Your task to perform on an android device: Search for Mexican restaurants on Maps Image 0: 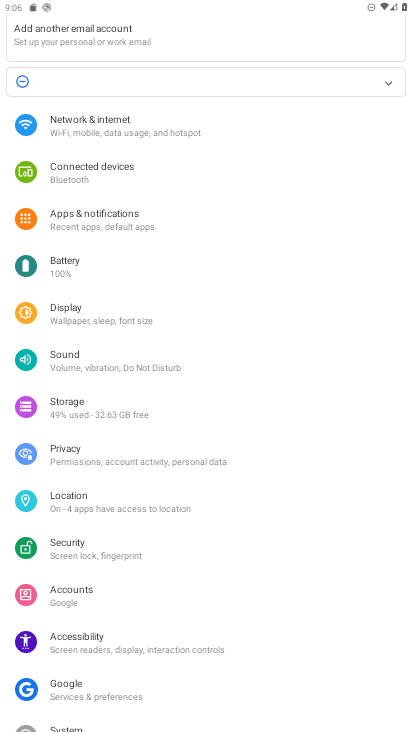
Step 0: press home button
Your task to perform on an android device: Search for Mexican restaurants on Maps Image 1: 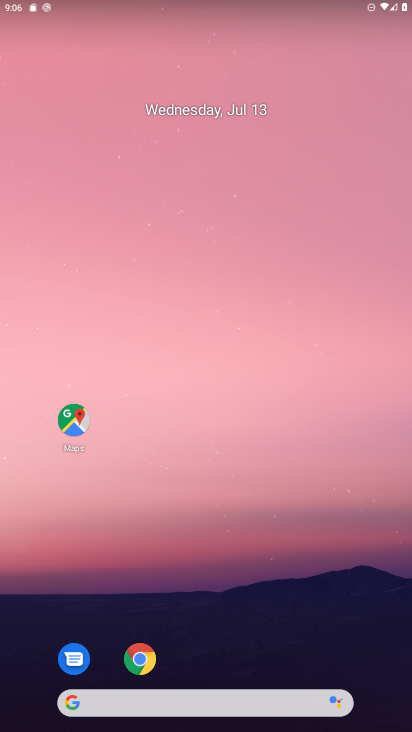
Step 1: click (71, 425)
Your task to perform on an android device: Search for Mexican restaurants on Maps Image 2: 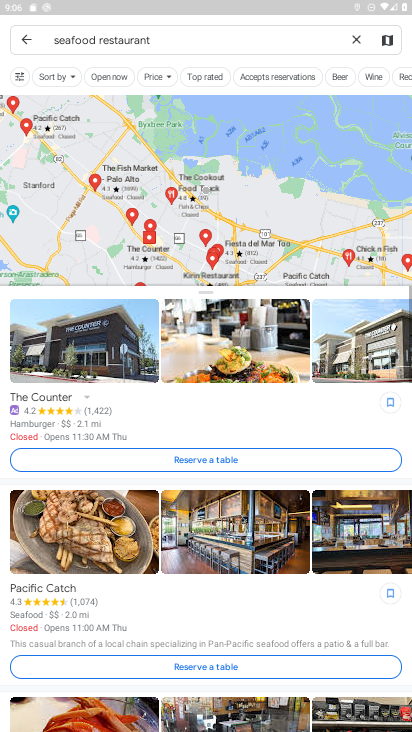
Step 2: click (261, 42)
Your task to perform on an android device: Search for Mexican restaurants on Maps Image 3: 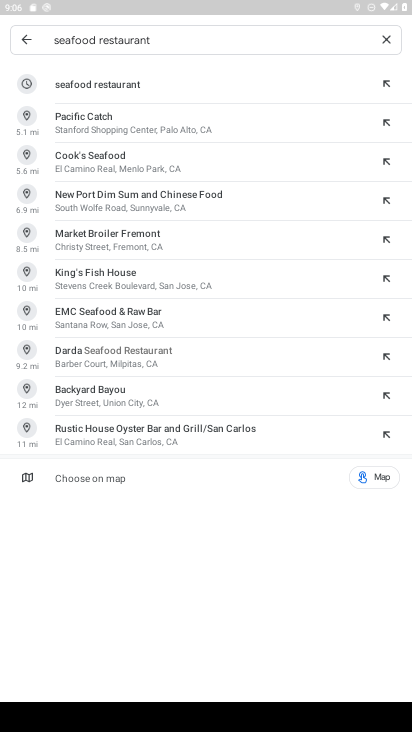
Step 3: click (382, 37)
Your task to perform on an android device: Search for Mexican restaurants on Maps Image 4: 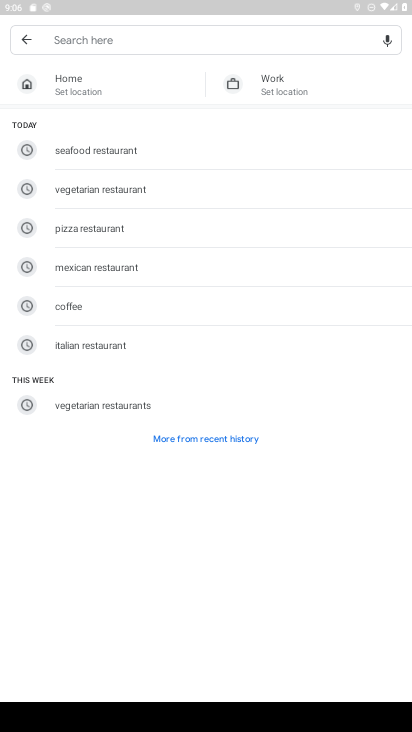
Step 4: click (118, 265)
Your task to perform on an android device: Search for Mexican restaurants on Maps Image 5: 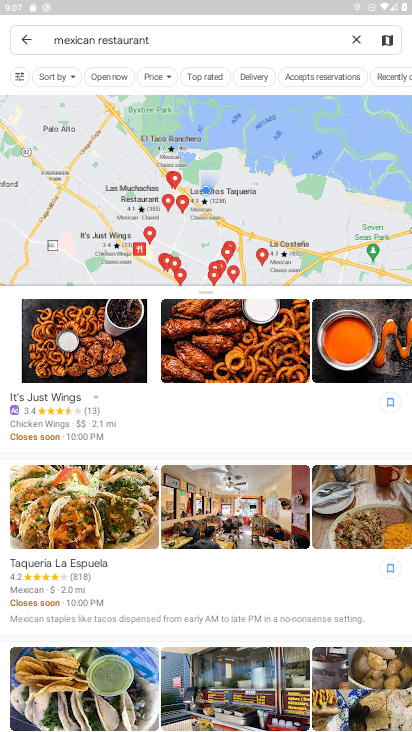
Step 5: task complete